Your task to perform on an android device: Open calendar and show me the third week of next month Image 0: 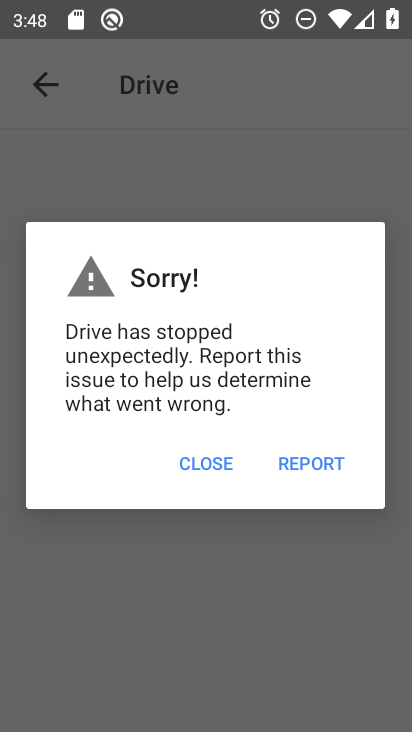
Step 0: click (186, 462)
Your task to perform on an android device: Open calendar and show me the third week of next month Image 1: 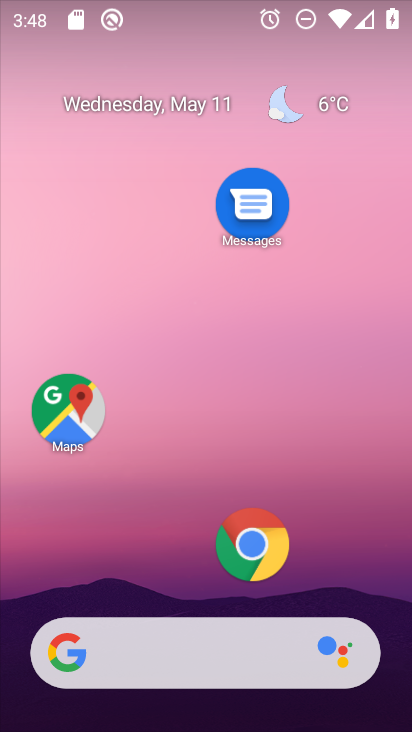
Step 1: drag from (184, 566) to (339, 17)
Your task to perform on an android device: Open calendar and show me the third week of next month Image 2: 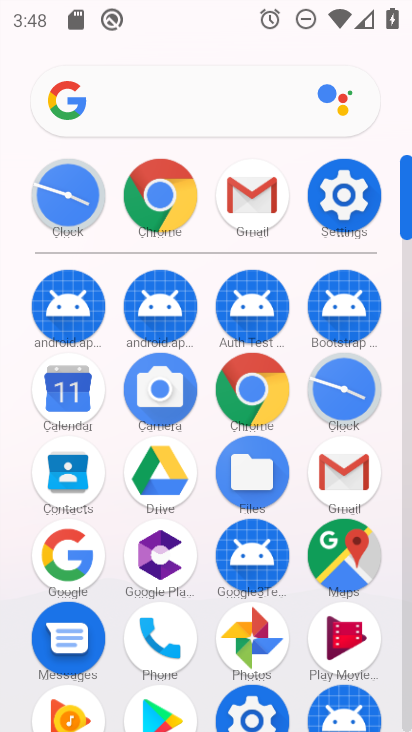
Step 2: click (73, 385)
Your task to perform on an android device: Open calendar and show me the third week of next month Image 3: 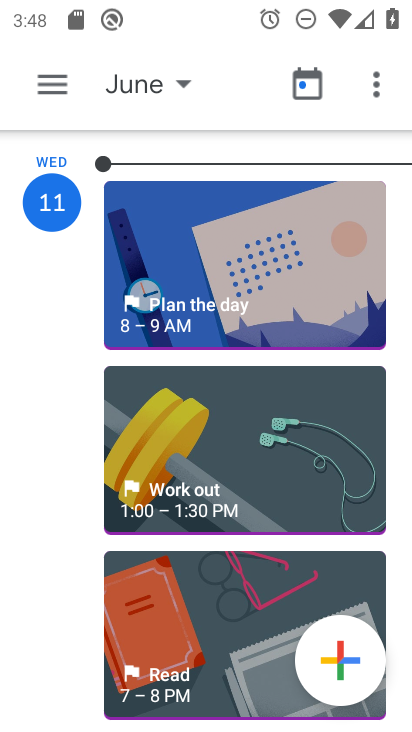
Step 3: click (157, 73)
Your task to perform on an android device: Open calendar and show me the third week of next month Image 4: 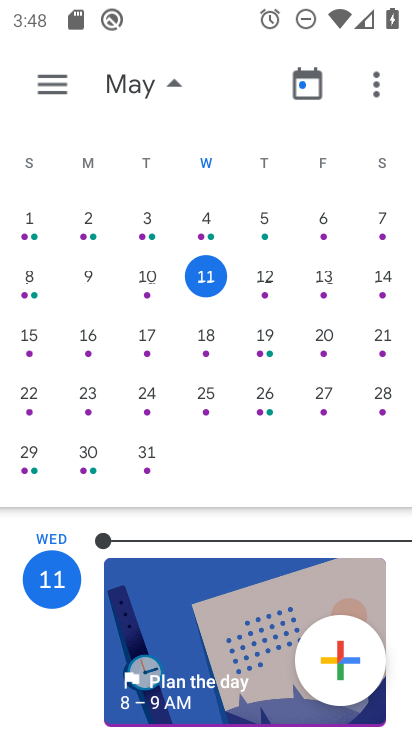
Step 4: click (83, 335)
Your task to perform on an android device: Open calendar and show me the third week of next month Image 5: 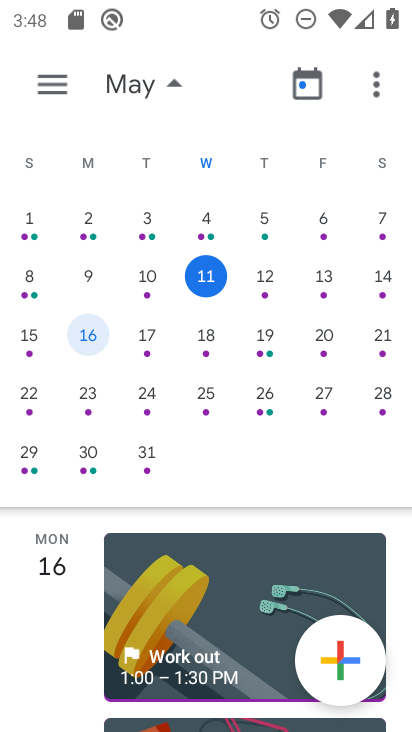
Step 5: drag from (373, 365) to (0, 356)
Your task to perform on an android device: Open calendar and show me the third week of next month Image 6: 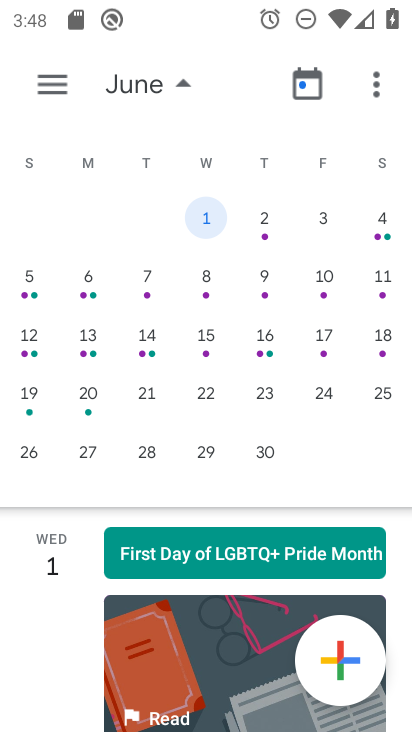
Step 6: drag from (401, 351) to (314, 360)
Your task to perform on an android device: Open calendar and show me the third week of next month Image 7: 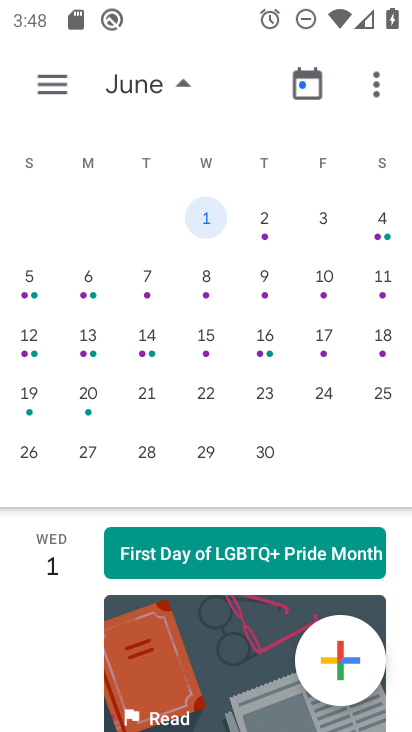
Step 7: click (91, 323)
Your task to perform on an android device: Open calendar and show me the third week of next month Image 8: 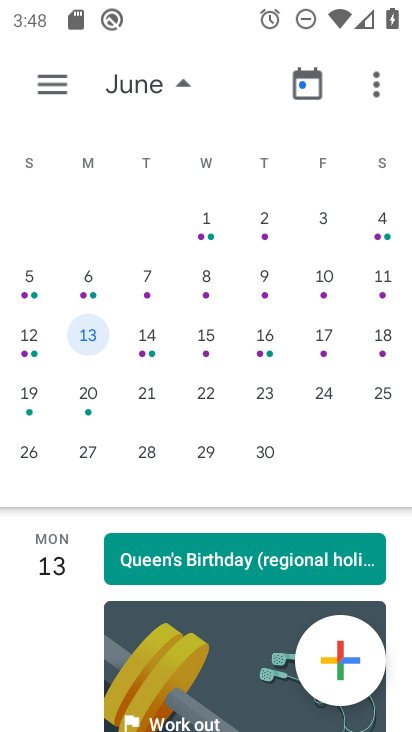
Step 8: task complete